Your task to perform on an android device: Open Wikipedia Image 0: 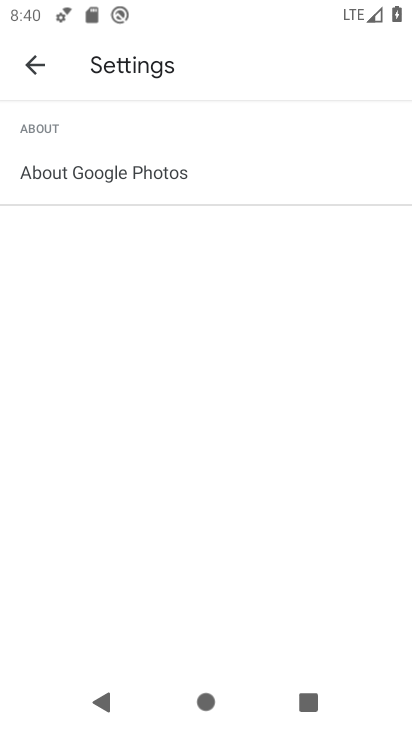
Step 0: press home button
Your task to perform on an android device: Open Wikipedia Image 1: 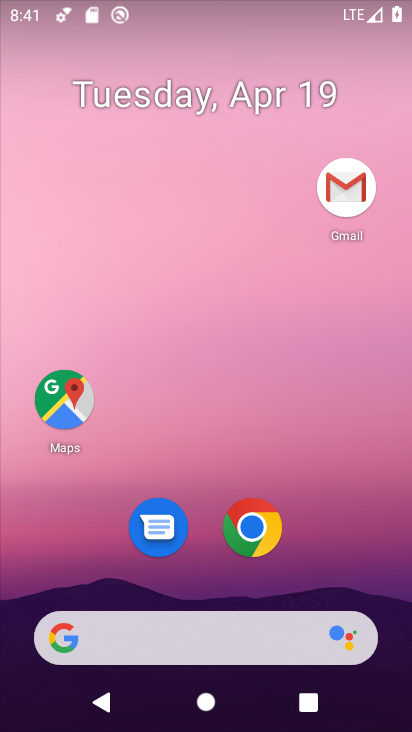
Step 1: drag from (367, 420) to (327, 96)
Your task to perform on an android device: Open Wikipedia Image 2: 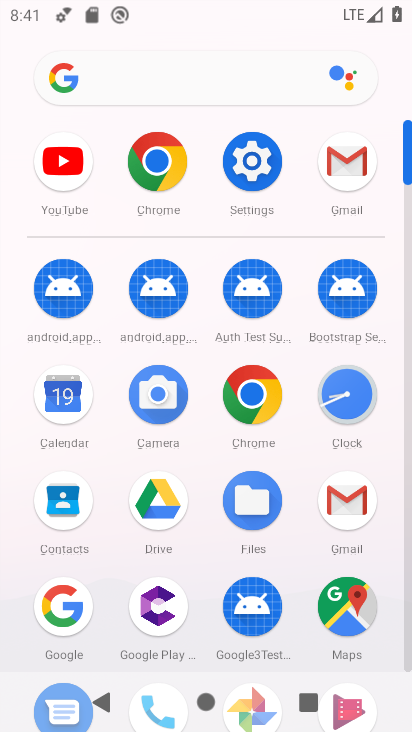
Step 2: click (238, 399)
Your task to perform on an android device: Open Wikipedia Image 3: 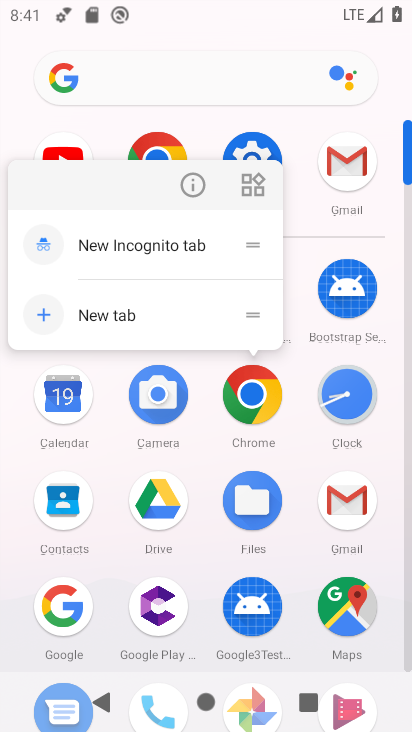
Step 3: click (238, 386)
Your task to perform on an android device: Open Wikipedia Image 4: 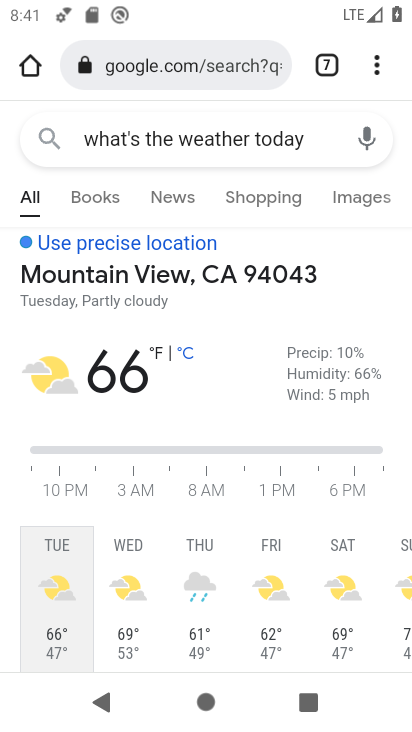
Step 4: click (229, 58)
Your task to perform on an android device: Open Wikipedia Image 5: 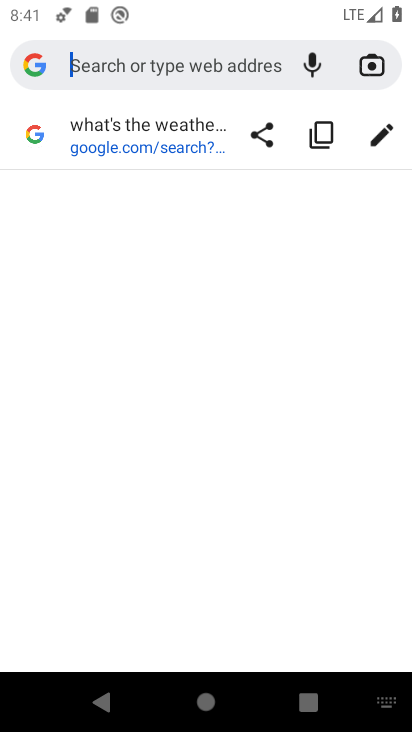
Step 5: type "wikipedia"
Your task to perform on an android device: Open Wikipedia Image 6: 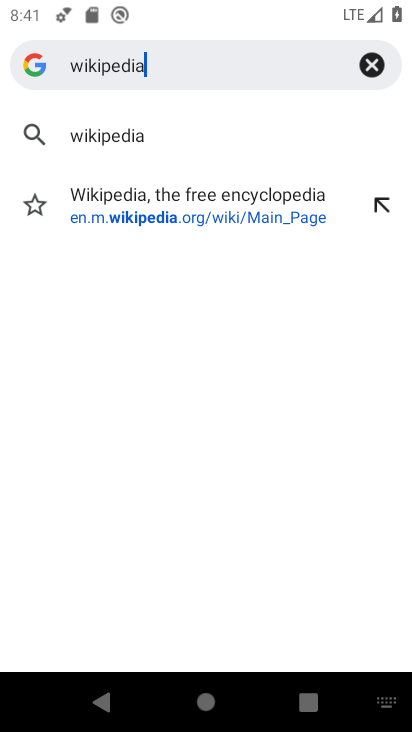
Step 6: click (173, 135)
Your task to perform on an android device: Open Wikipedia Image 7: 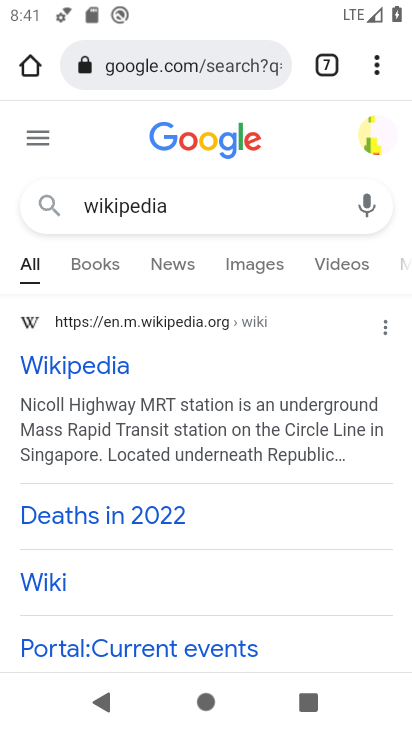
Step 7: click (100, 366)
Your task to perform on an android device: Open Wikipedia Image 8: 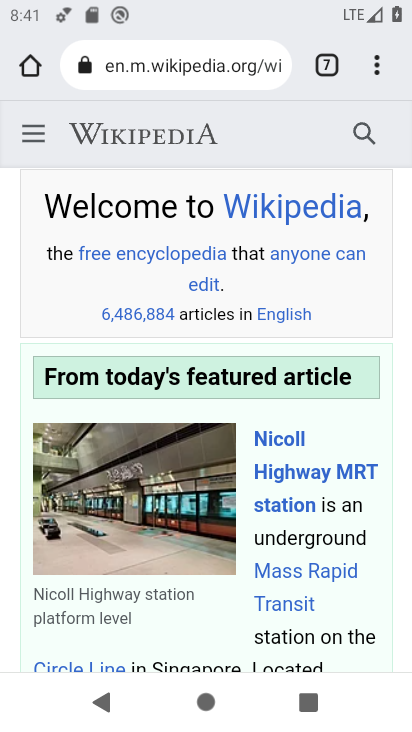
Step 8: task complete